Your task to perform on an android device: open sync settings in chrome Image 0: 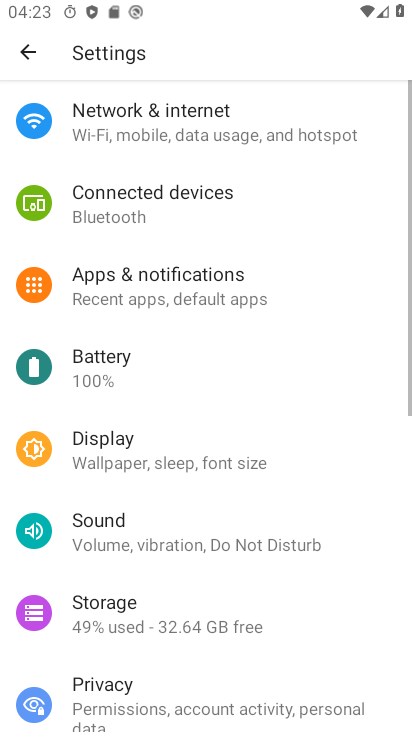
Step 0: press back button
Your task to perform on an android device: open sync settings in chrome Image 1: 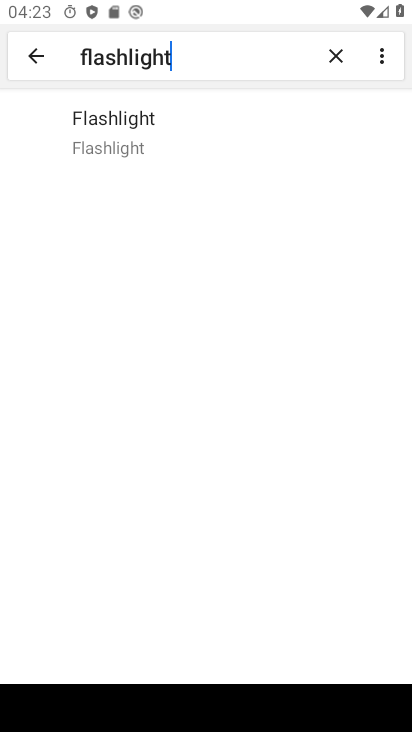
Step 1: press back button
Your task to perform on an android device: open sync settings in chrome Image 2: 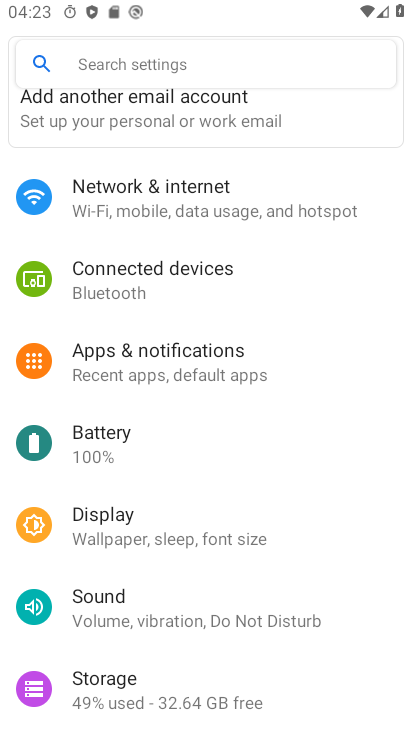
Step 2: press back button
Your task to perform on an android device: open sync settings in chrome Image 3: 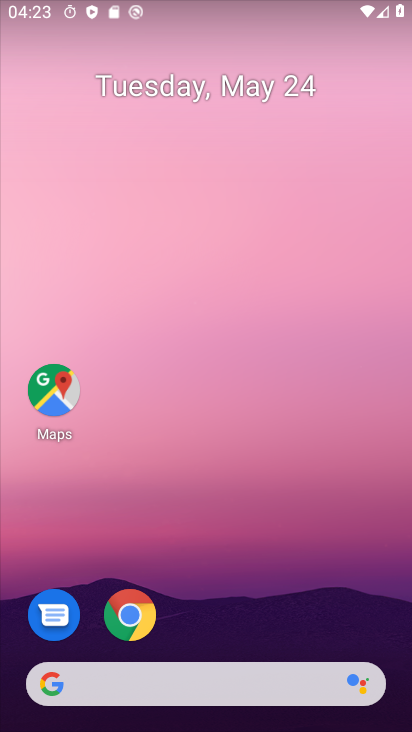
Step 3: click (118, 621)
Your task to perform on an android device: open sync settings in chrome Image 4: 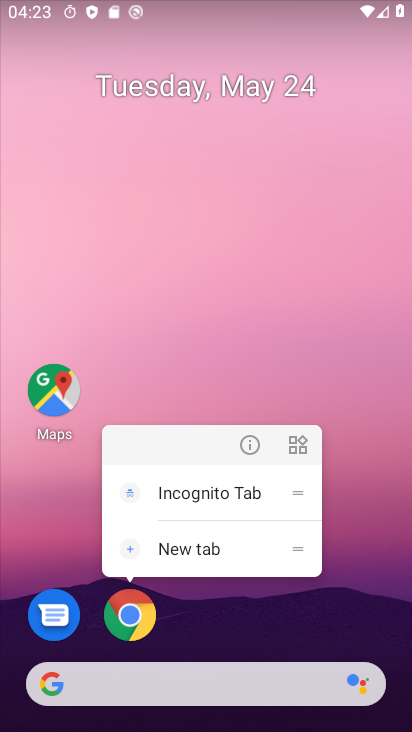
Step 4: click (127, 605)
Your task to perform on an android device: open sync settings in chrome Image 5: 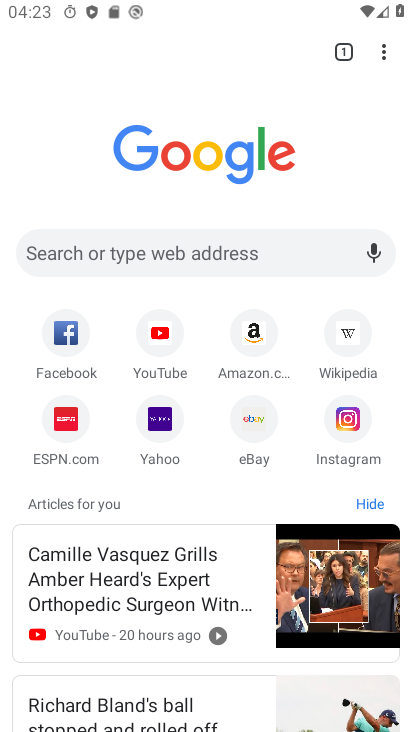
Step 5: drag from (379, 45) to (203, 442)
Your task to perform on an android device: open sync settings in chrome Image 6: 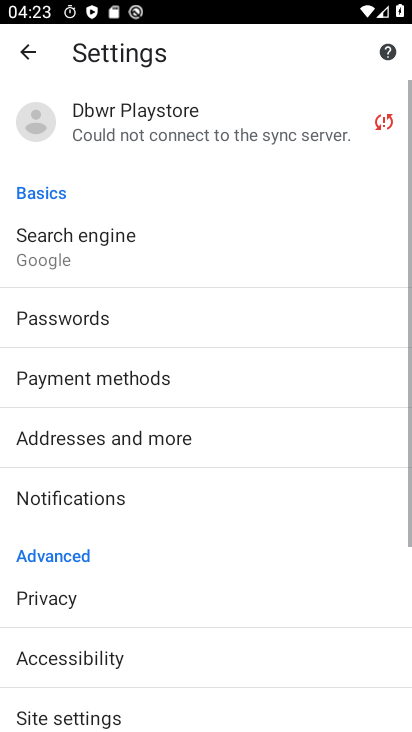
Step 6: click (154, 117)
Your task to perform on an android device: open sync settings in chrome Image 7: 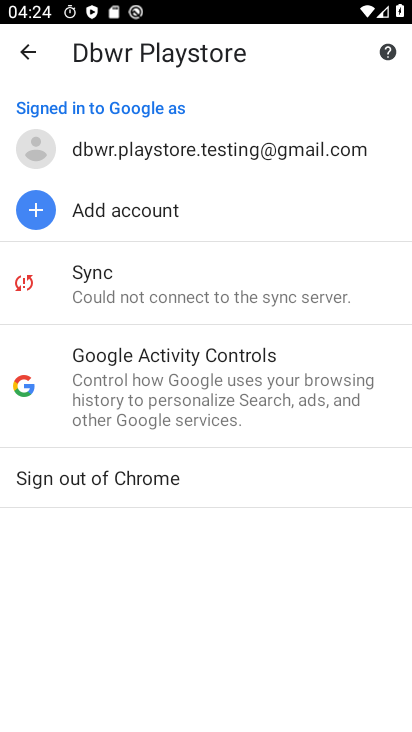
Step 7: task complete